Your task to perform on an android device: Is it going to rain this weekend? Image 0: 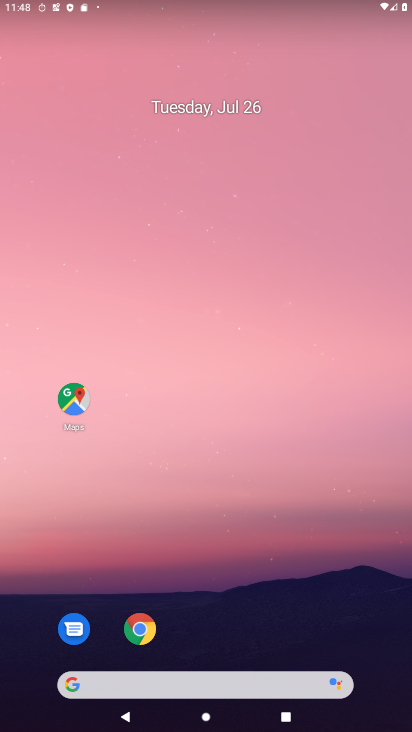
Step 0: drag from (340, 628) to (321, 135)
Your task to perform on an android device: Is it going to rain this weekend? Image 1: 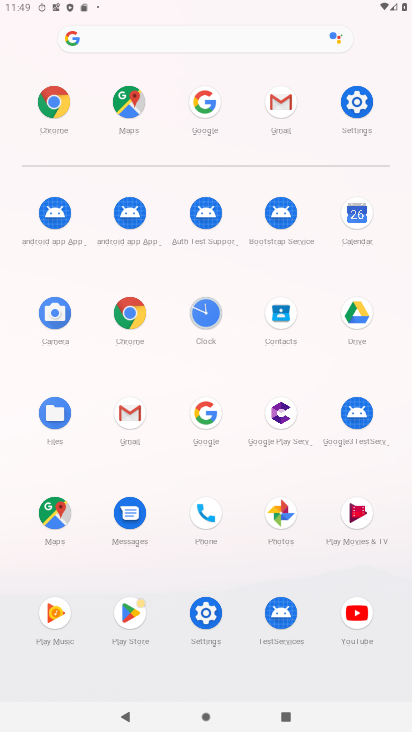
Step 1: click (205, 405)
Your task to perform on an android device: Is it going to rain this weekend? Image 2: 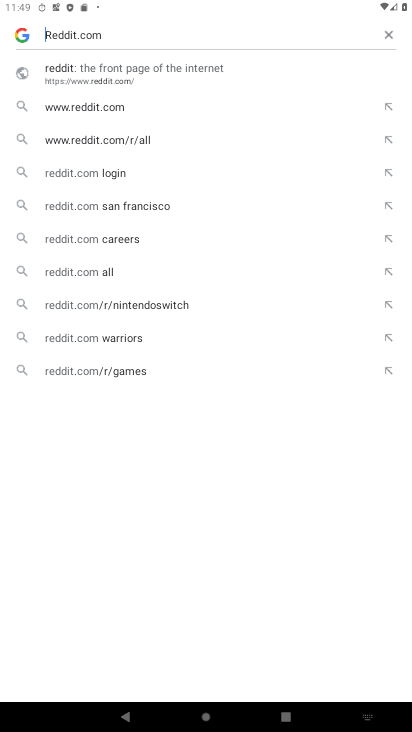
Step 2: click (391, 31)
Your task to perform on an android device: Is it going to rain this weekend? Image 3: 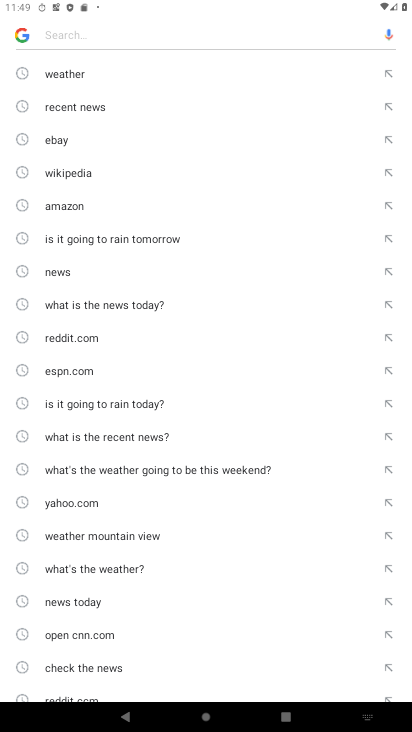
Step 3: type "Is it going to rain this weekend?"
Your task to perform on an android device: Is it going to rain this weekend? Image 4: 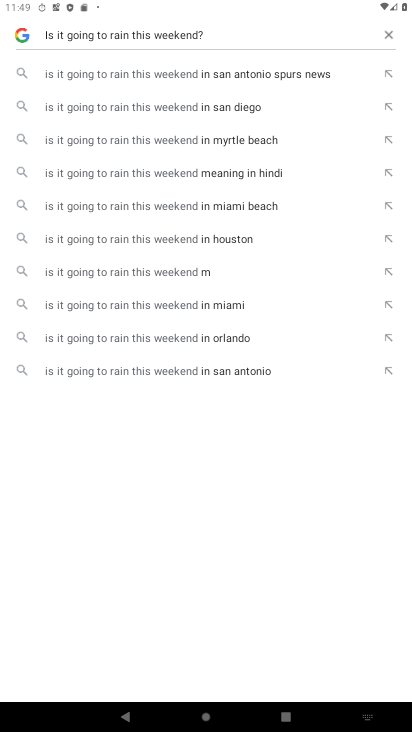
Step 4: task complete